Your task to perform on an android device: install app "Google Play Music" Image 0: 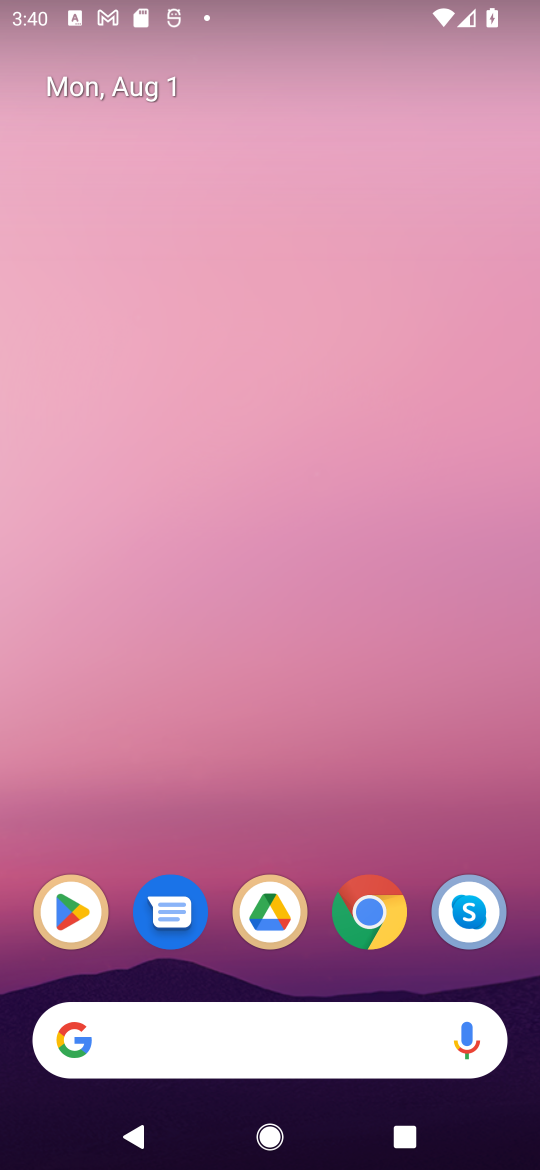
Step 0: click (75, 922)
Your task to perform on an android device: install app "Google Play Music" Image 1: 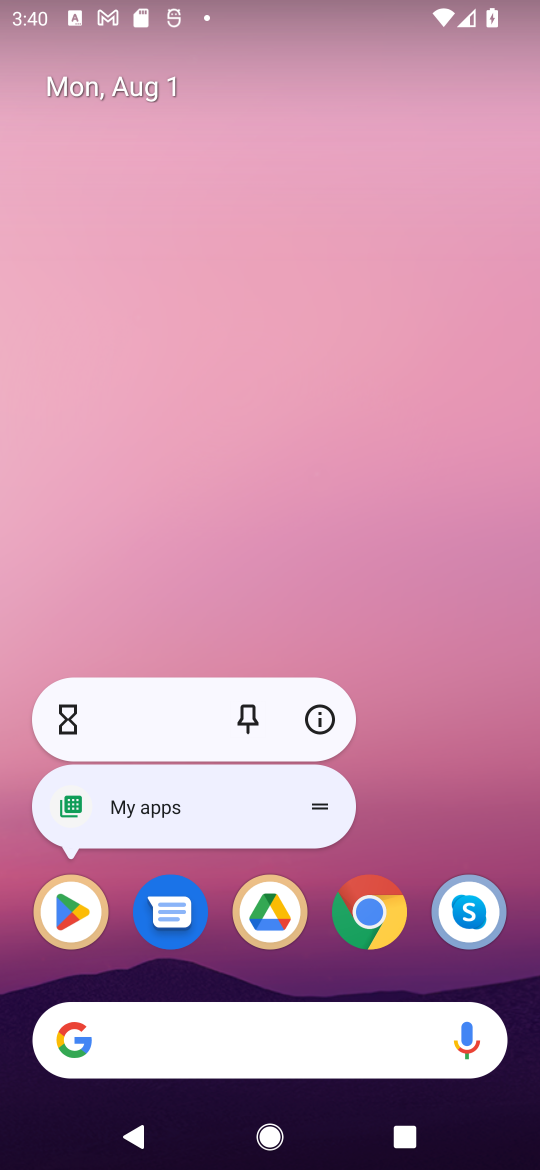
Step 1: click (75, 922)
Your task to perform on an android device: install app "Google Play Music" Image 2: 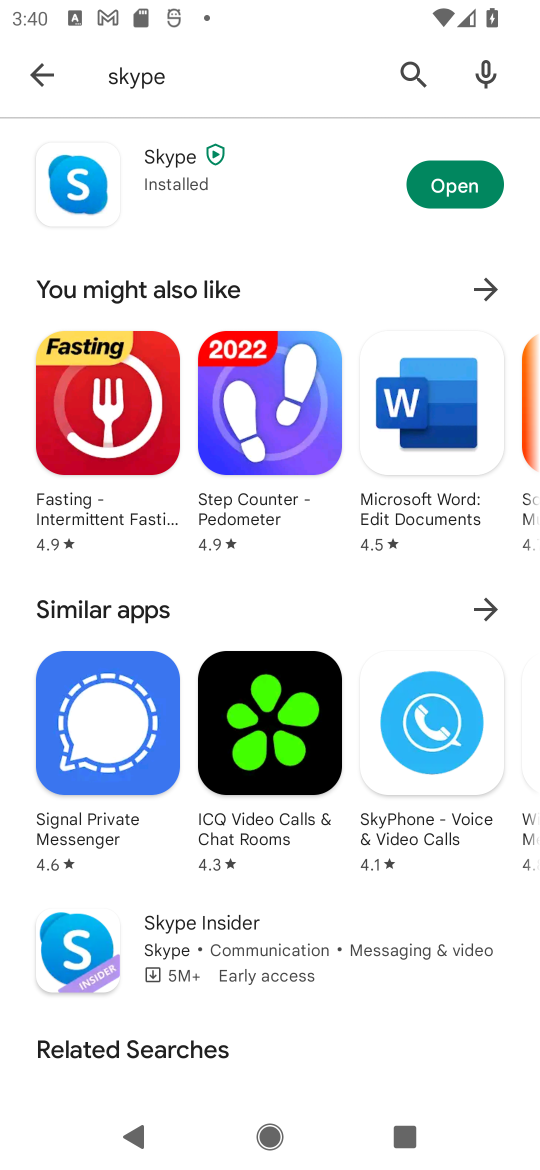
Step 2: click (397, 87)
Your task to perform on an android device: install app "Google Play Music" Image 3: 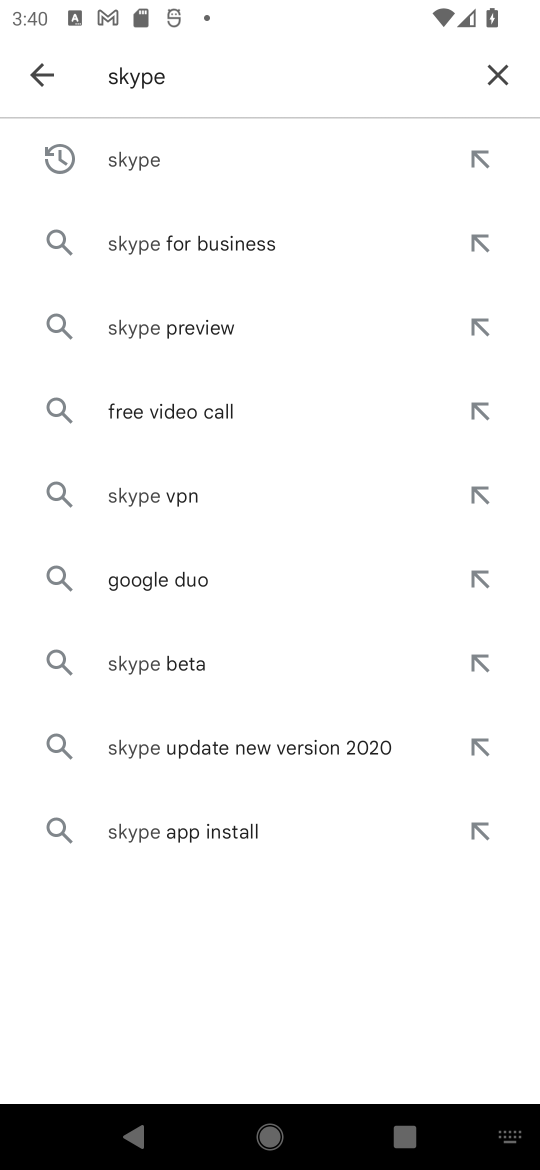
Step 3: click (488, 72)
Your task to perform on an android device: install app "Google Play Music" Image 4: 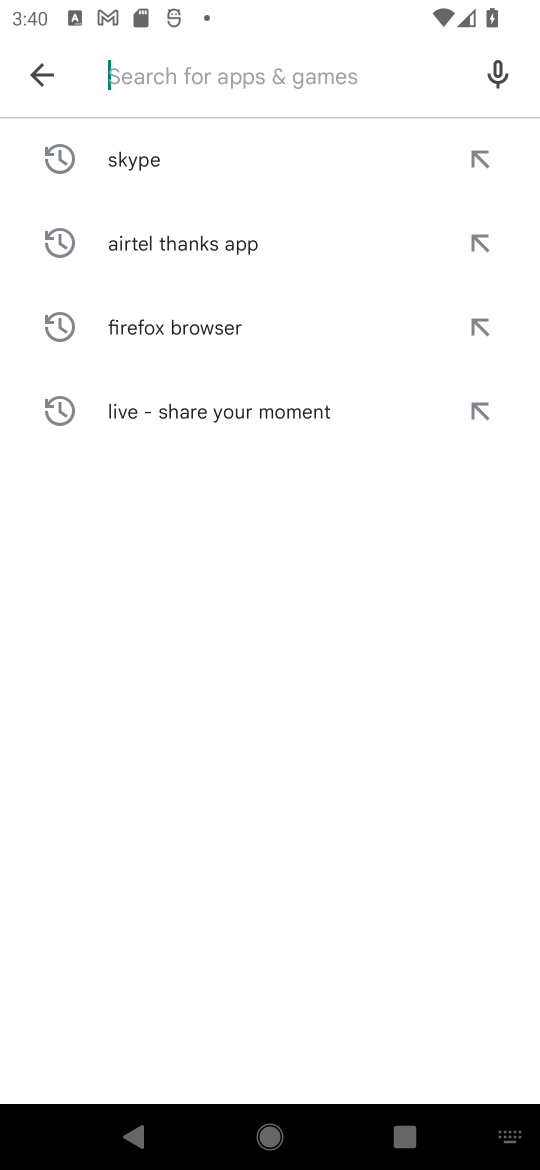
Step 4: type "Google Play Music"
Your task to perform on an android device: install app "Google Play Music" Image 5: 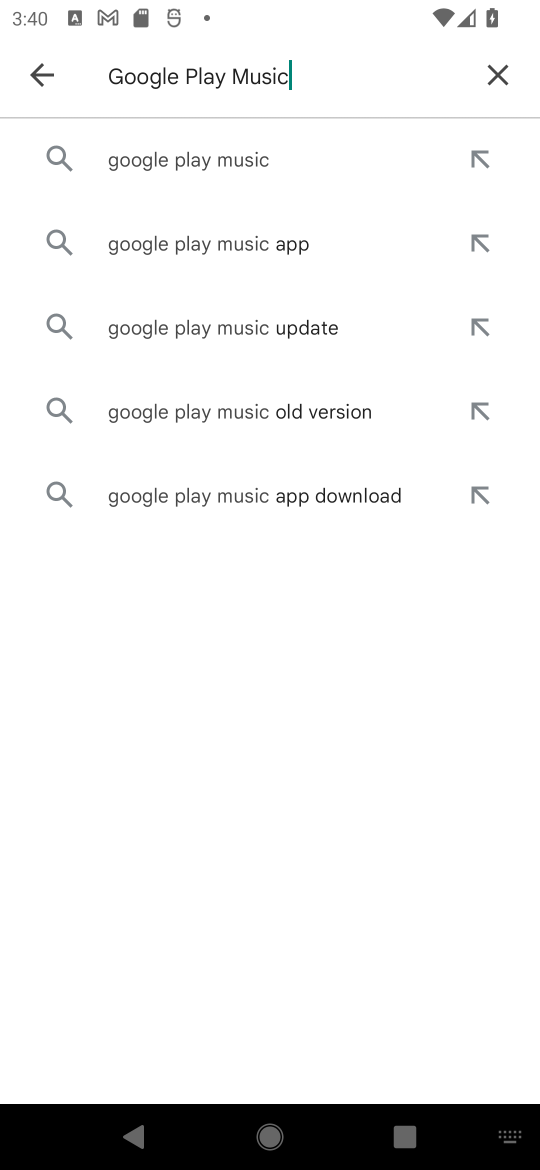
Step 5: click (162, 165)
Your task to perform on an android device: install app "Google Play Music" Image 6: 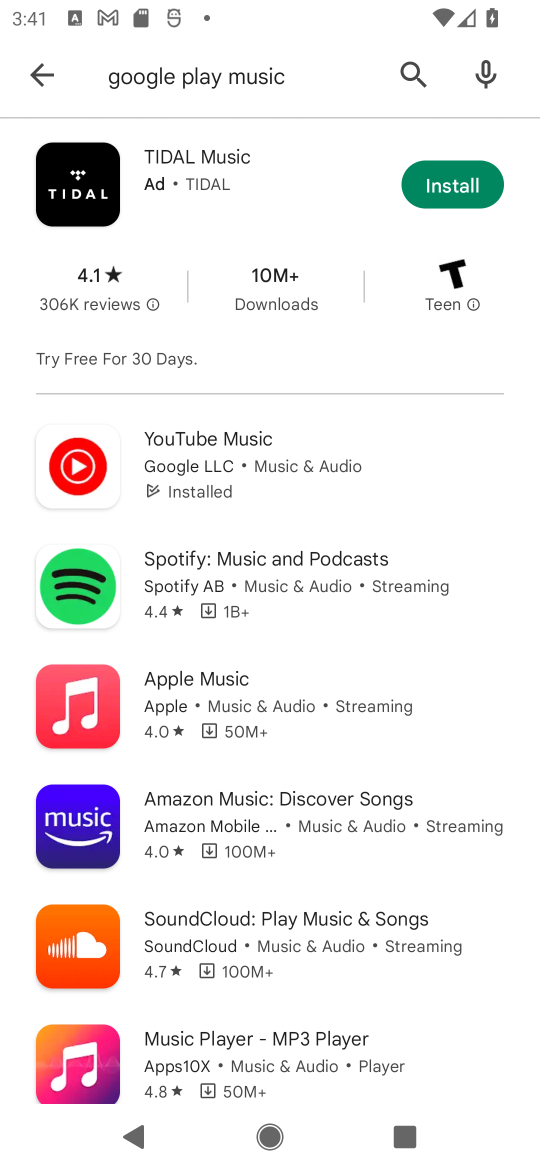
Step 6: task complete